Your task to perform on an android device: Open the Play Movies app and select the watchlist tab. Image 0: 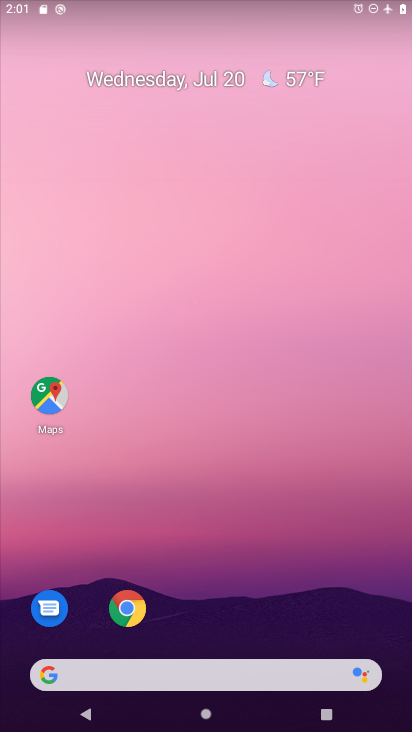
Step 0: drag from (75, 284) to (101, 141)
Your task to perform on an android device: Open the Play Movies app and select the watchlist tab. Image 1: 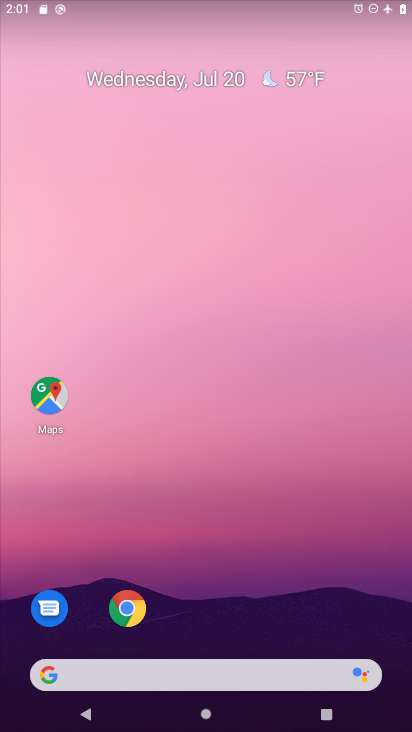
Step 1: drag from (264, 728) to (249, 106)
Your task to perform on an android device: Open the Play Movies app and select the watchlist tab. Image 2: 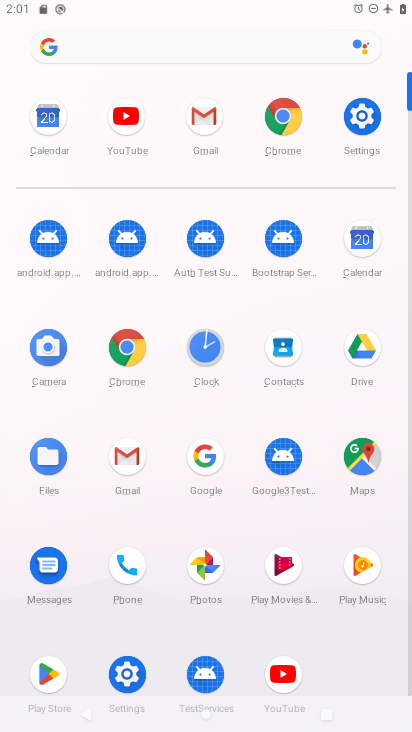
Step 2: click (283, 569)
Your task to perform on an android device: Open the Play Movies app and select the watchlist tab. Image 3: 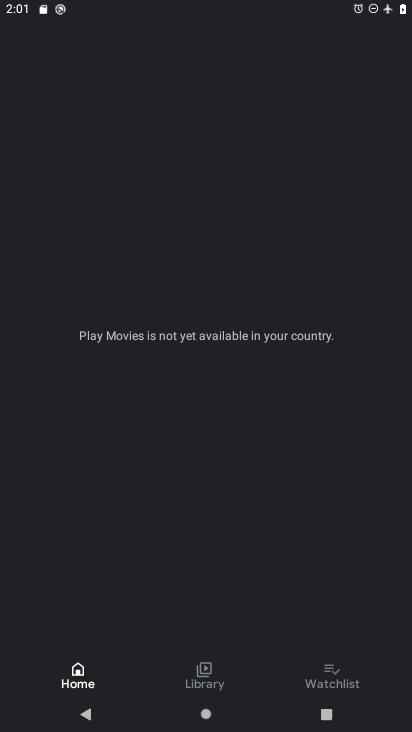
Step 3: click (326, 672)
Your task to perform on an android device: Open the Play Movies app and select the watchlist tab. Image 4: 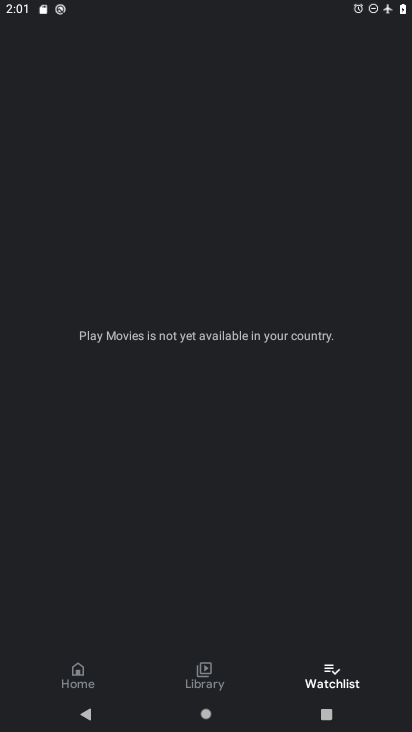
Step 4: task complete